Your task to perform on an android device: open device folders in google photos Image 0: 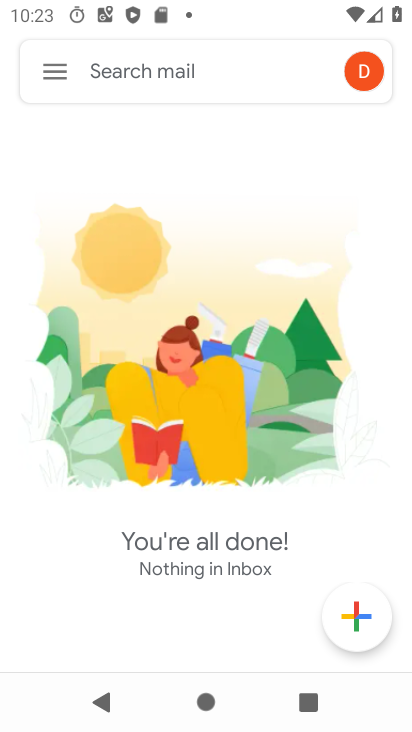
Step 0: press home button
Your task to perform on an android device: open device folders in google photos Image 1: 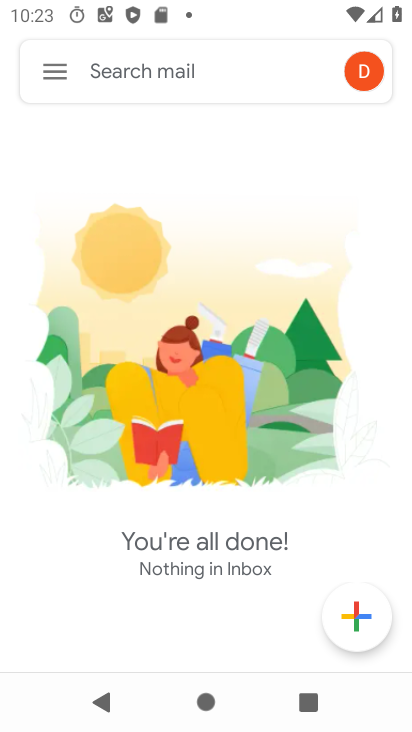
Step 1: press home button
Your task to perform on an android device: open device folders in google photos Image 2: 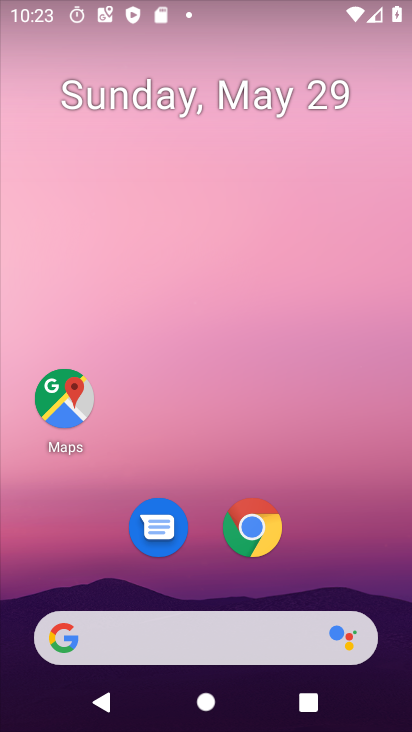
Step 2: drag from (336, 498) to (295, 57)
Your task to perform on an android device: open device folders in google photos Image 3: 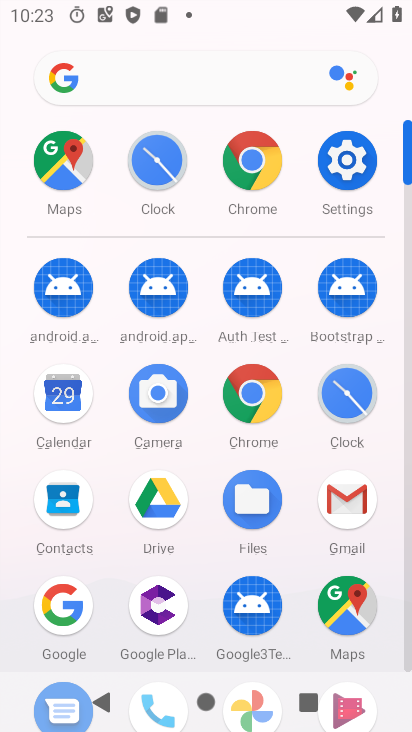
Step 3: drag from (311, 563) to (307, 368)
Your task to perform on an android device: open device folders in google photos Image 4: 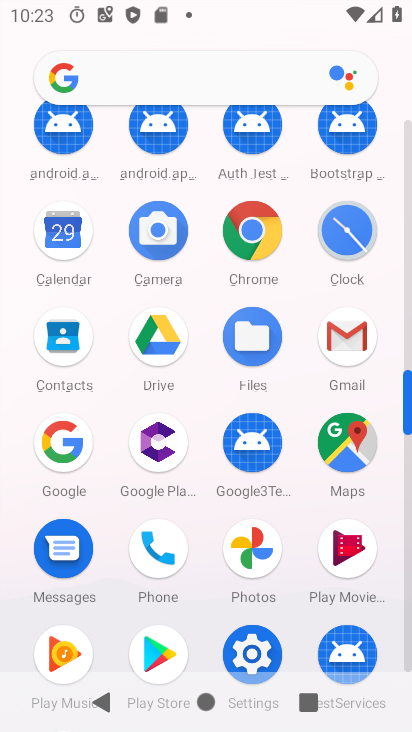
Step 4: click (307, 338)
Your task to perform on an android device: open device folders in google photos Image 5: 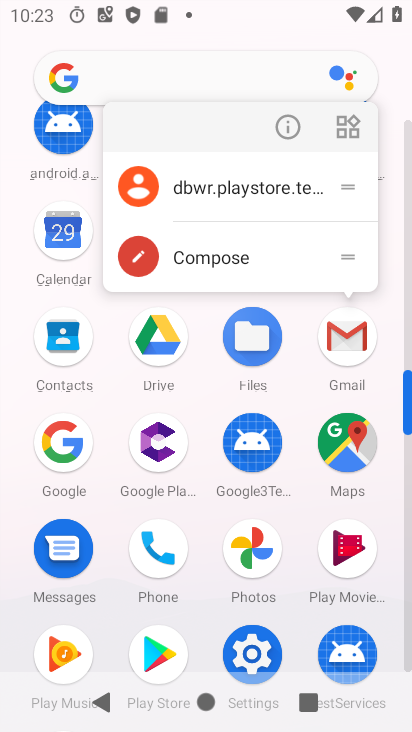
Step 5: click (262, 538)
Your task to perform on an android device: open device folders in google photos Image 6: 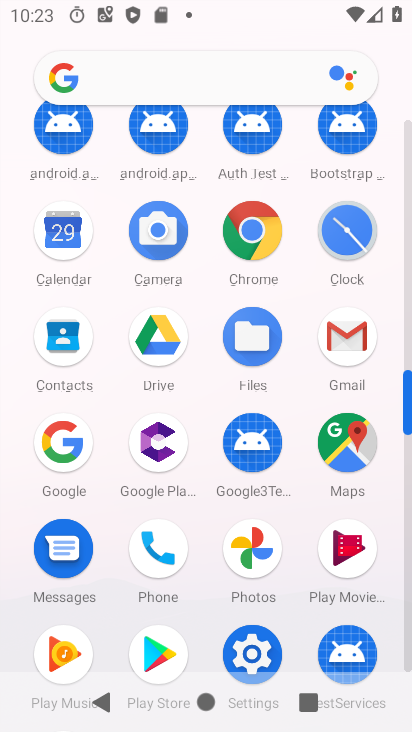
Step 6: click (241, 537)
Your task to perform on an android device: open device folders in google photos Image 7: 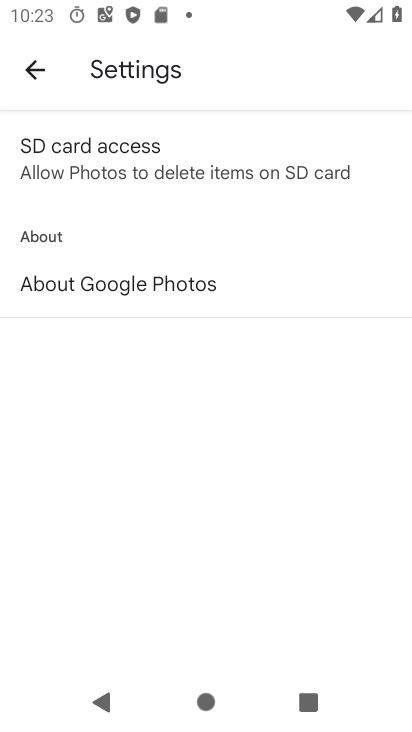
Step 7: click (46, 81)
Your task to perform on an android device: open device folders in google photos Image 8: 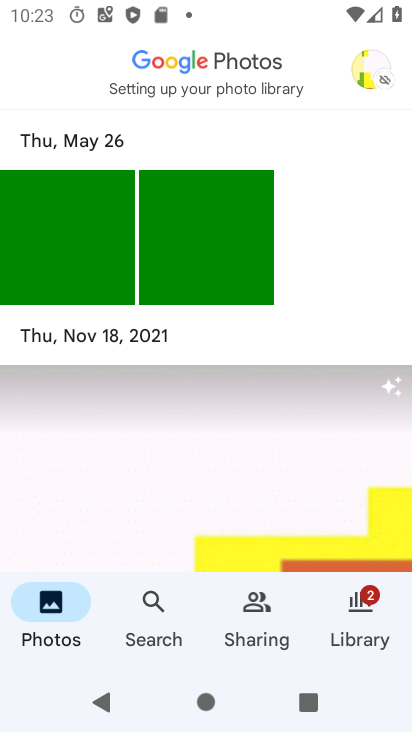
Step 8: click (390, 623)
Your task to perform on an android device: open device folders in google photos Image 9: 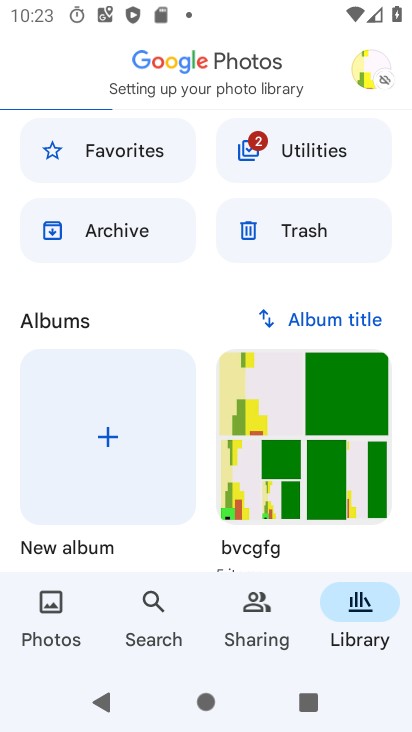
Step 9: click (338, 154)
Your task to perform on an android device: open device folders in google photos Image 10: 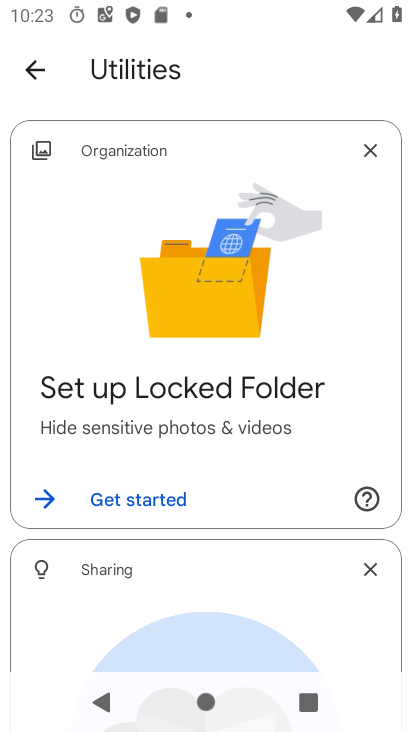
Step 10: drag from (184, 576) to (239, 187)
Your task to perform on an android device: open device folders in google photos Image 11: 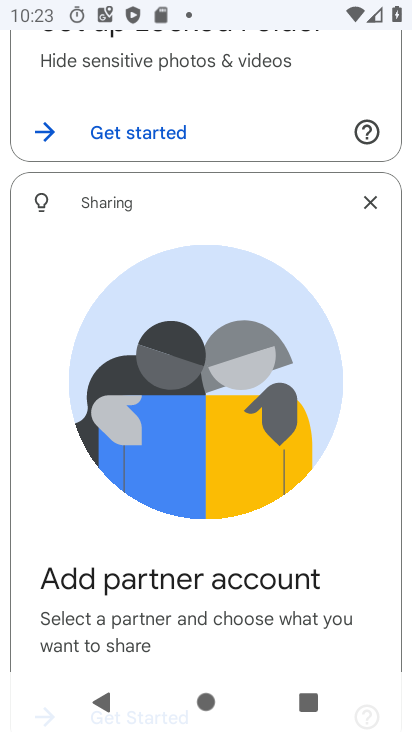
Step 11: drag from (204, 514) to (227, 192)
Your task to perform on an android device: open device folders in google photos Image 12: 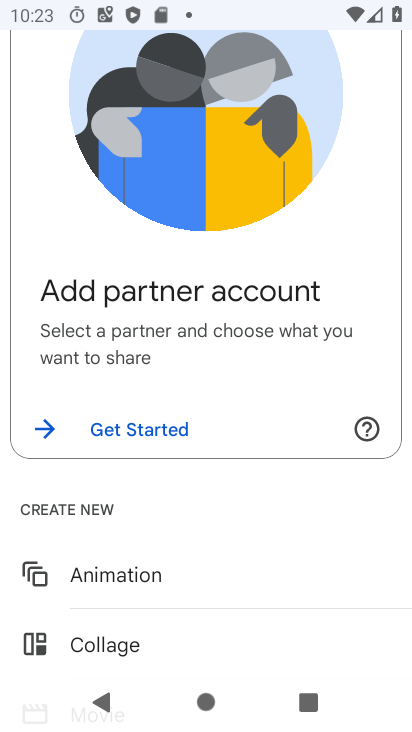
Step 12: click (229, 188)
Your task to perform on an android device: open device folders in google photos Image 13: 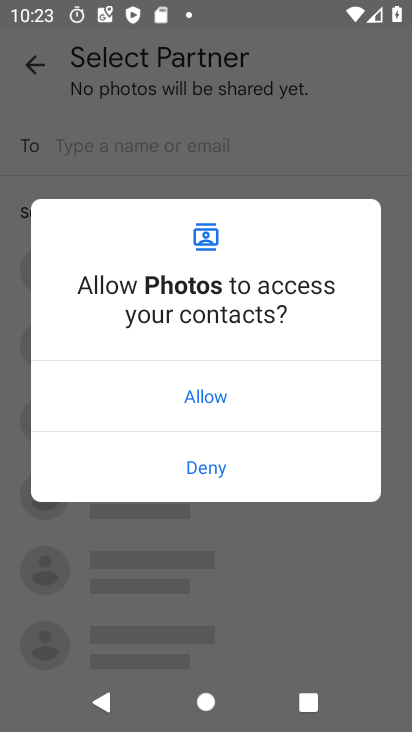
Step 13: drag from (243, 575) to (262, 489)
Your task to perform on an android device: open device folders in google photos Image 14: 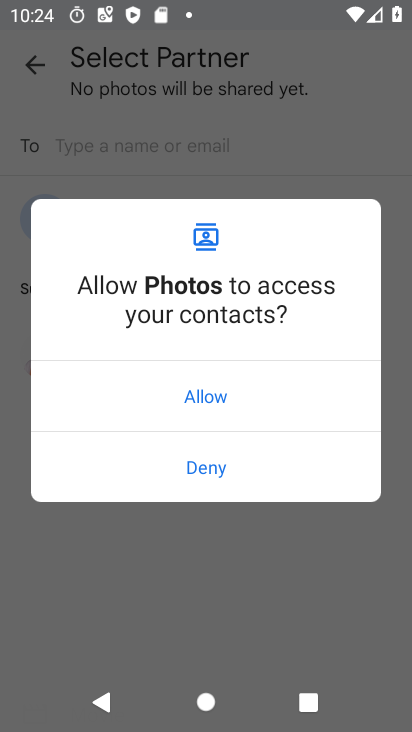
Step 14: press back button
Your task to perform on an android device: open device folders in google photos Image 15: 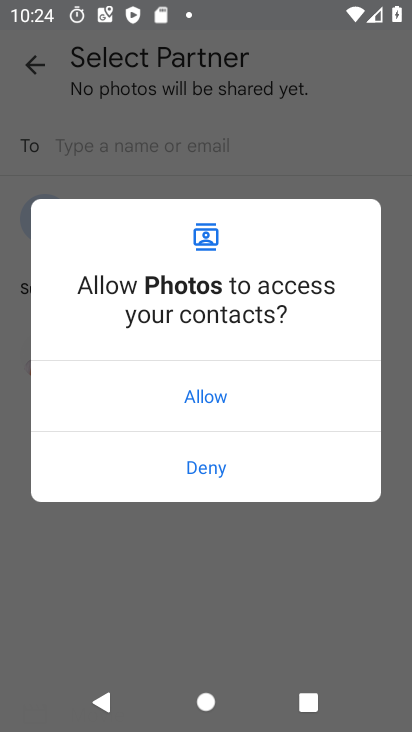
Step 15: press back button
Your task to perform on an android device: open device folders in google photos Image 16: 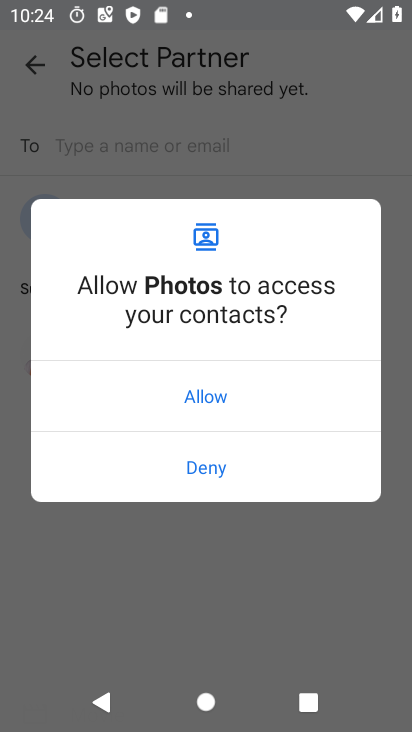
Step 16: click (266, 472)
Your task to perform on an android device: open device folders in google photos Image 17: 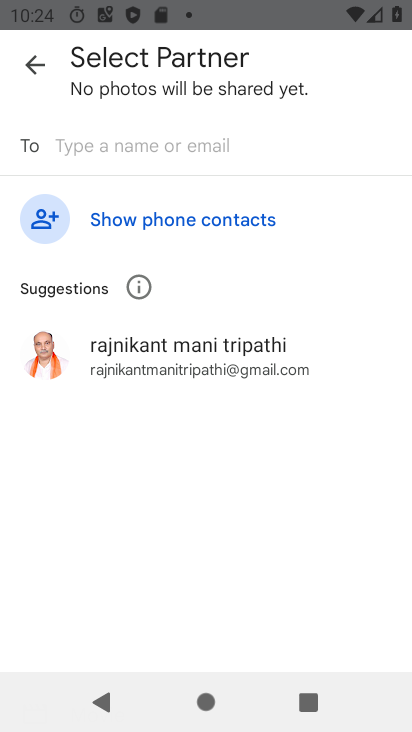
Step 17: click (29, 58)
Your task to perform on an android device: open device folders in google photos Image 18: 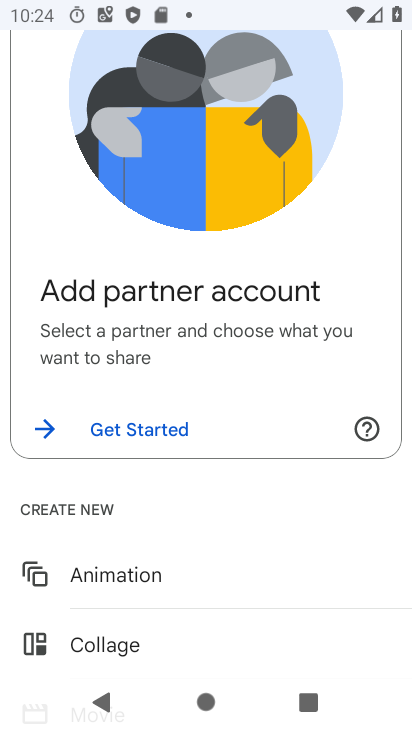
Step 18: drag from (231, 631) to (263, 185)
Your task to perform on an android device: open device folders in google photos Image 19: 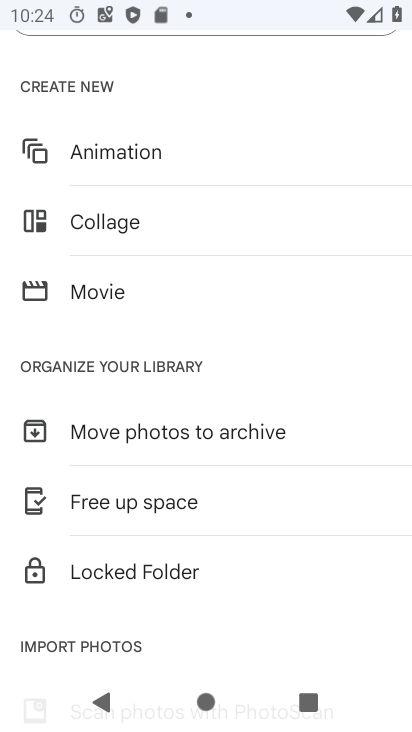
Step 19: click (263, 185)
Your task to perform on an android device: open device folders in google photos Image 20: 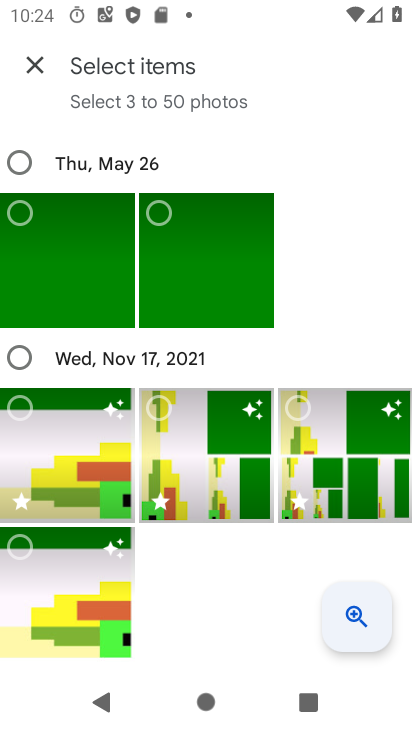
Step 20: click (41, 57)
Your task to perform on an android device: open device folders in google photos Image 21: 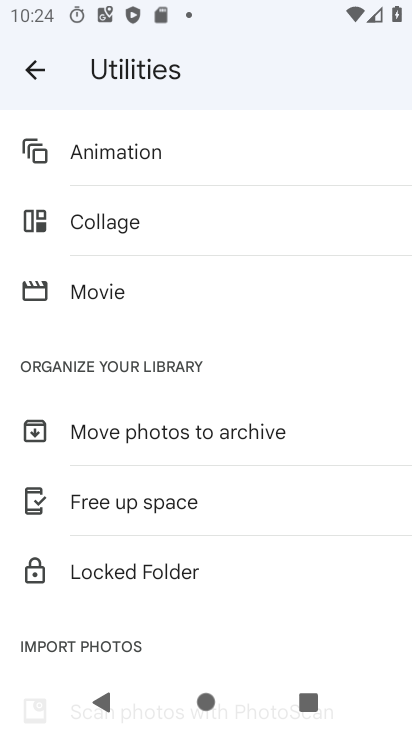
Step 21: drag from (268, 596) to (248, 145)
Your task to perform on an android device: open device folders in google photos Image 22: 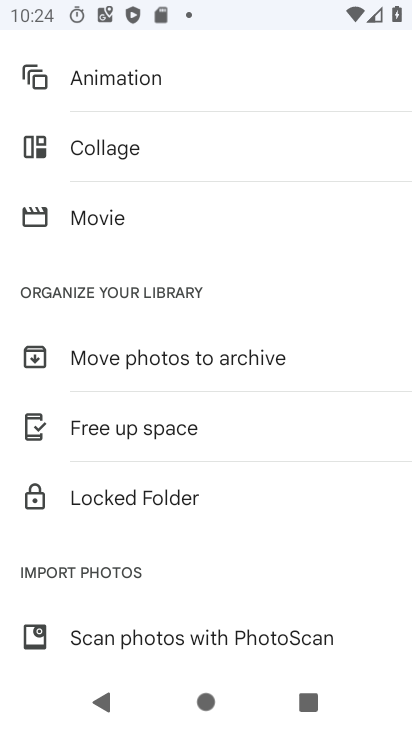
Step 22: drag from (235, 509) to (292, 70)
Your task to perform on an android device: open device folders in google photos Image 23: 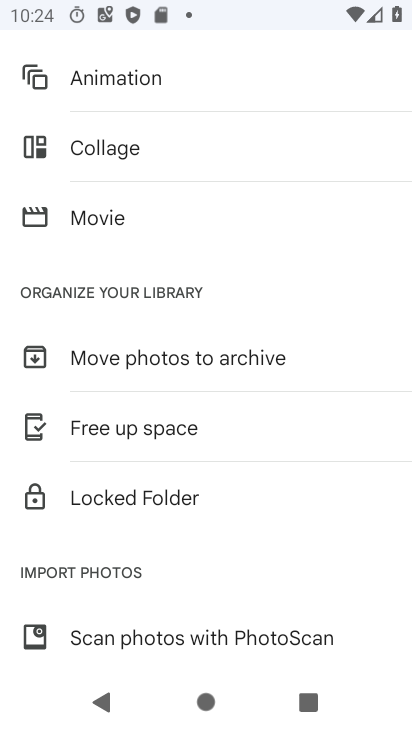
Step 23: drag from (218, 128) to (254, 583)
Your task to perform on an android device: open device folders in google photos Image 24: 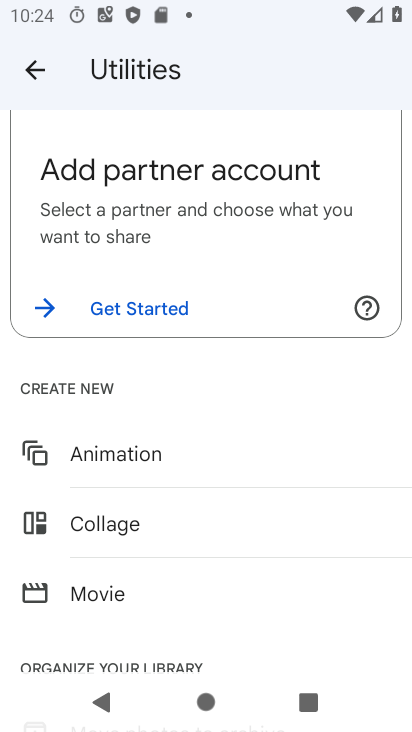
Step 24: drag from (245, 154) to (267, 665)
Your task to perform on an android device: open device folders in google photos Image 25: 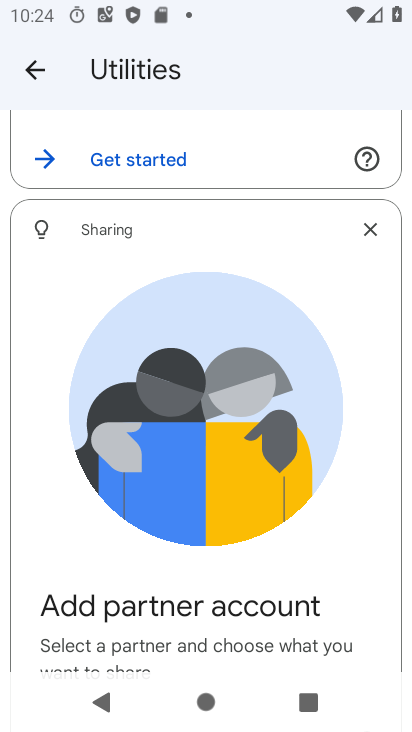
Step 25: click (39, 46)
Your task to perform on an android device: open device folders in google photos Image 26: 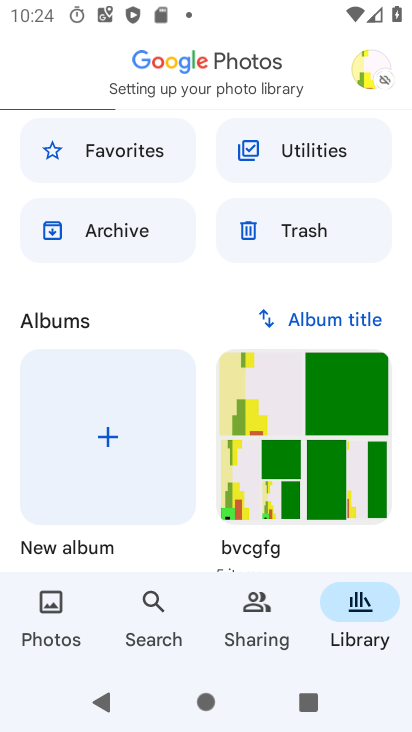
Step 26: click (361, 622)
Your task to perform on an android device: open device folders in google photos Image 27: 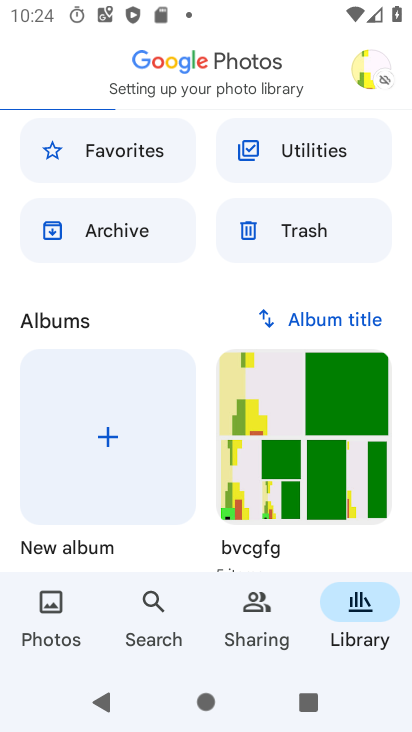
Step 27: click (114, 238)
Your task to perform on an android device: open device folders in google photos Image 28: 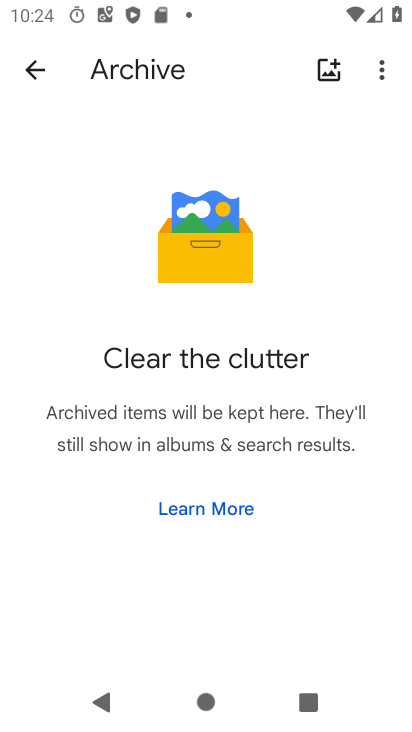
Step 28: click (31, 89)
Your task to perform on an android device: open device folders in google photos Image 29: 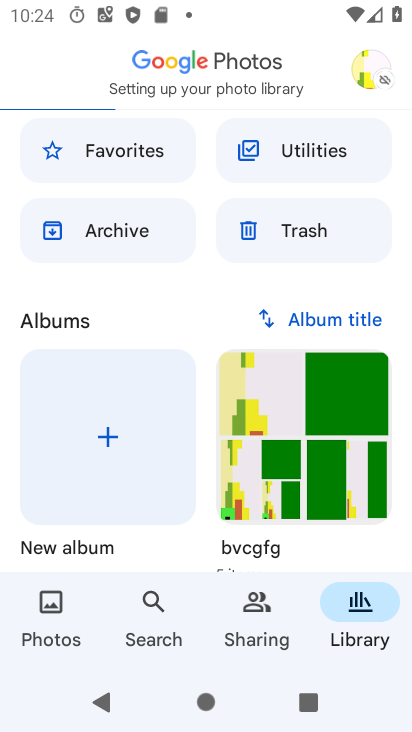
Step 29: click (333, 145)
Your task to perform on an android device: open device folders in google photos Image 30: 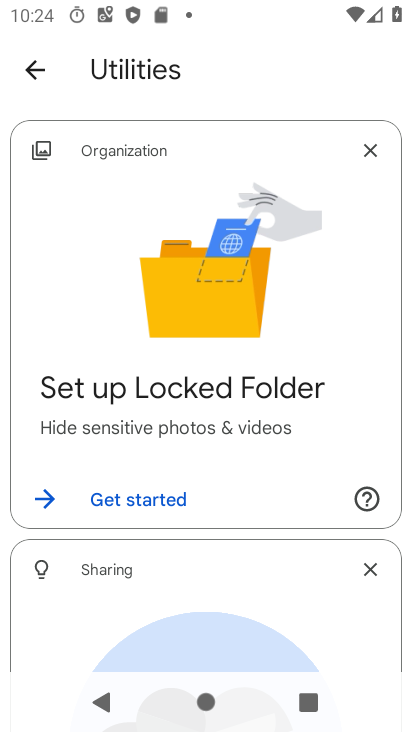
Step 30: drag from (244, 573) to (248, 28)
Your task to perform on an android device: open device folders in google photos Image 31: 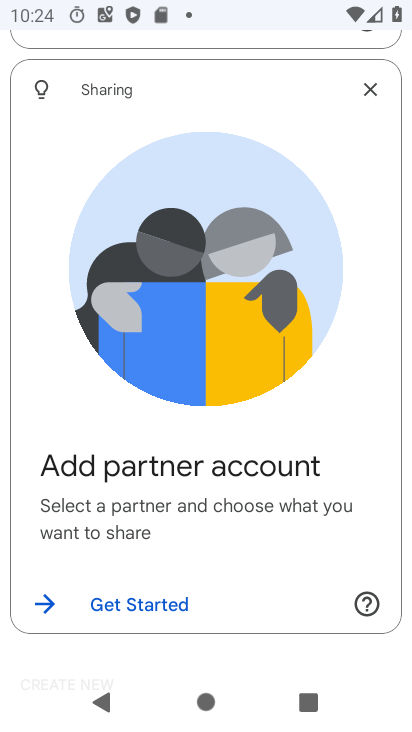
Step 31: drag from (243, 505) to (260, 46)
Your task to perform on an android device: open device folders in google photos Image 32: 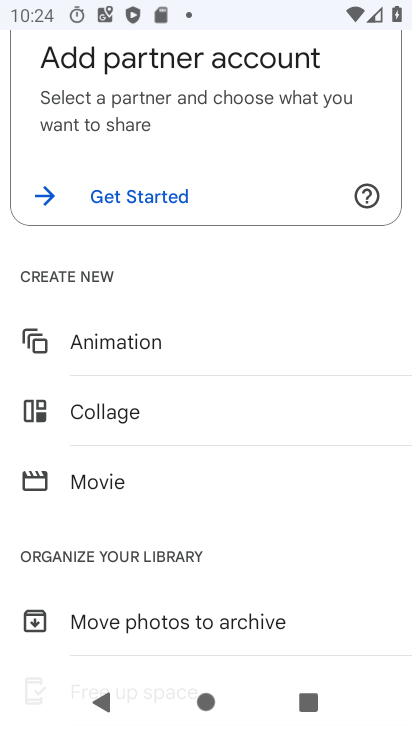
Step 32: drag from (217, 533) to (240, 144)
Your task to perform on an android device: open device folders in google photos Image 33: 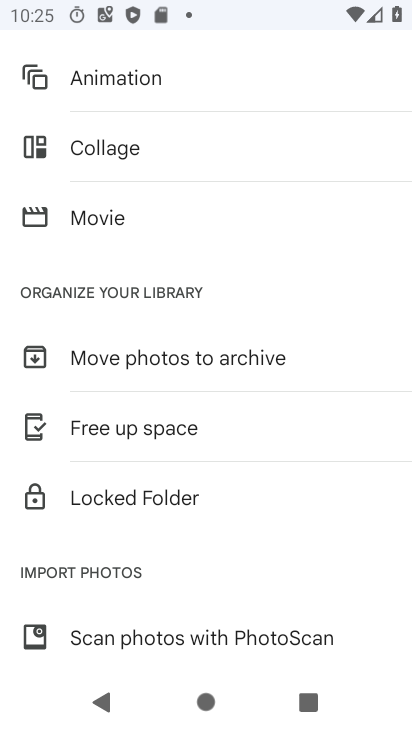
Step 33: drag from (226, 578) to (246, 194)
Your task to perform on an android device: open device folders in google photos Image 34: 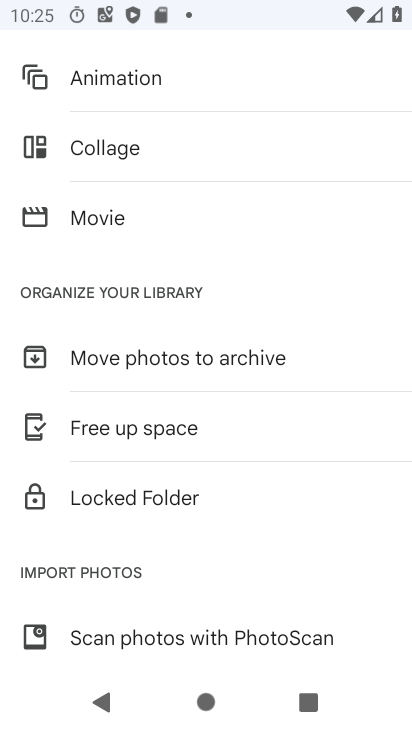
Step 34: drag from (224, 203) to (212, 148)
Your task to perform on an android device: open device folders in google photos Image 35: 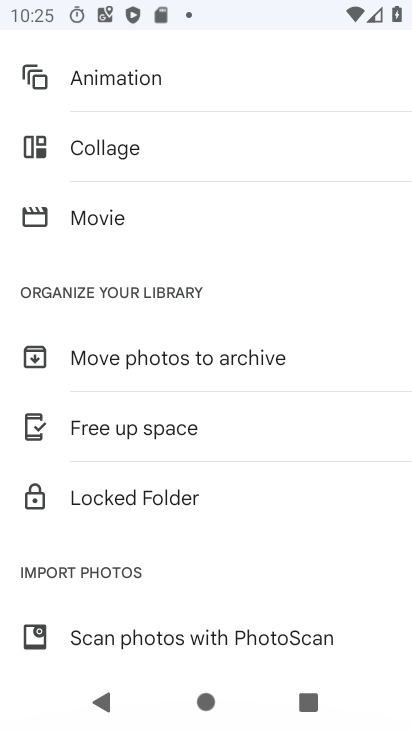
Step 35: click (191, 344)
Your task to perform on an android device: open device folders in google photos Image 36: 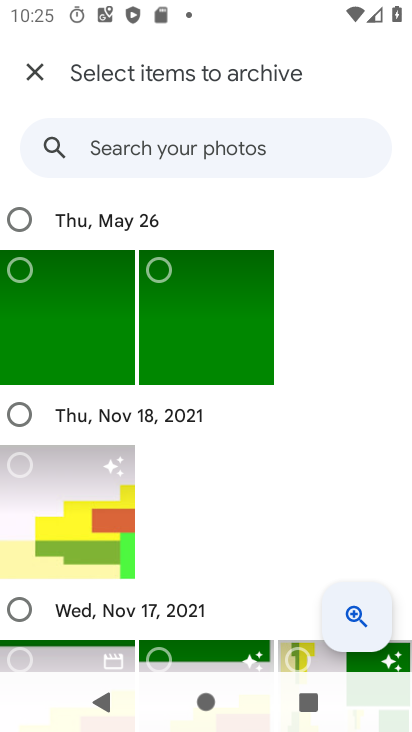
Step 36: click (22, 72)
Your task to perform on an android device: open device folders in google photos Image 37: 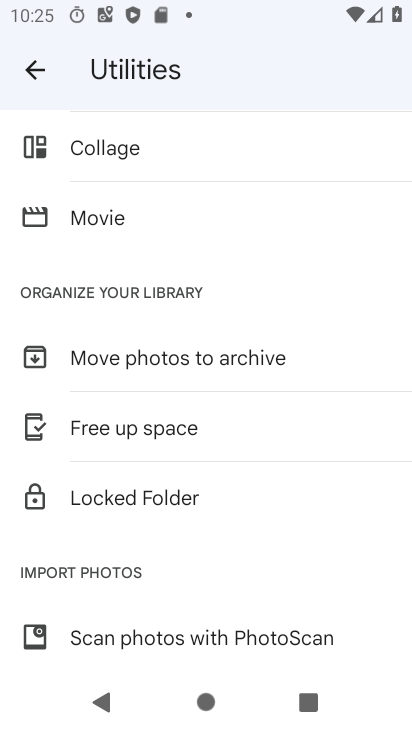
Step 37: click (182, 433)
Your task to perform on an android device: open device folders in google photos Image 38: 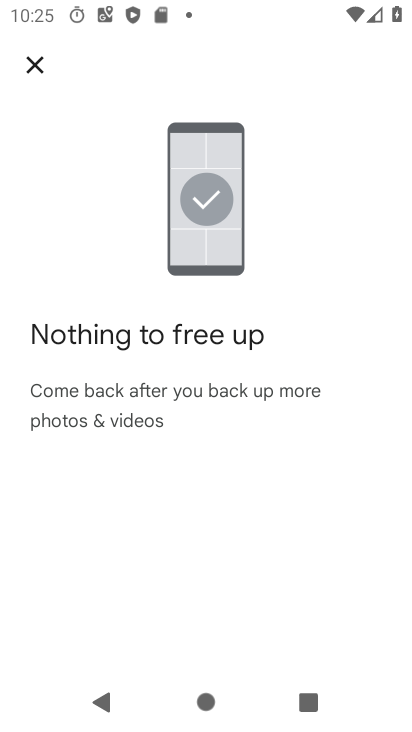
Step 38: click (25, 44)
Your task to perform on an android device: open device folders in google photos Image 39: 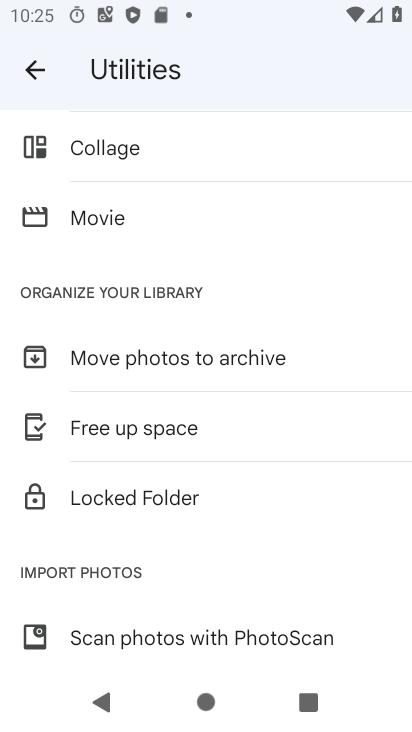
Step 39: drag from (268, 313) to (266, 646)
Your task to perform on an android device: open device folders in google photos Image 40: 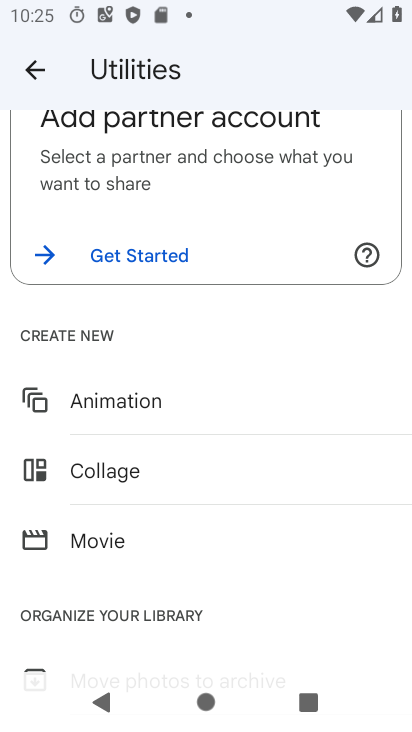
Step 40: click (37, 77)
Your task to perform on an android device: open device folders in google photos Image 41: 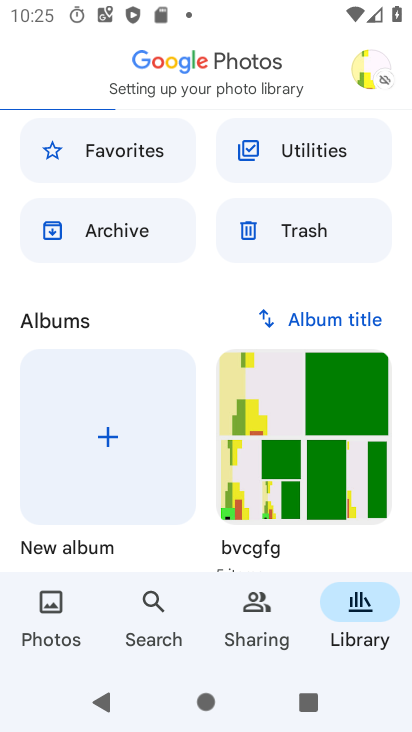
Step 41: click (375, 50)
Your task to perform on an android device: open device folders in google photos Image 42: 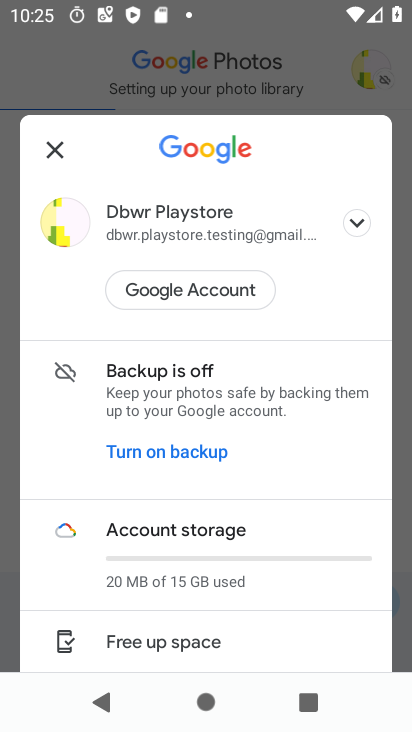
Step 42: drag from (224, 588) to (235, 136)
Your task to perform on an android device: open device folders in google photos Image 43: 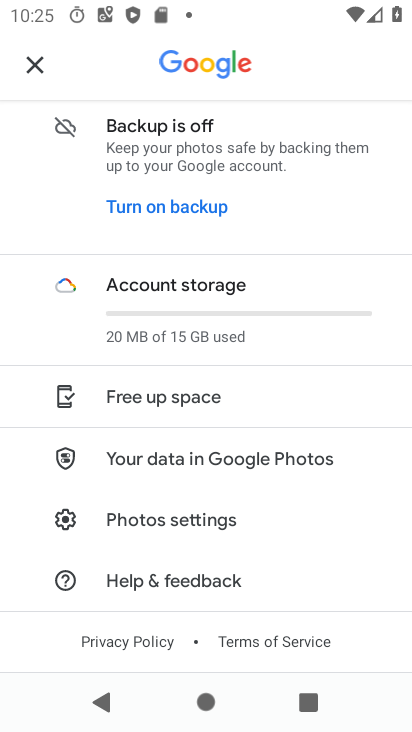
Step 43: click (201, 522)
Your task to perform on an android device: open device folders in google photos Image 44: 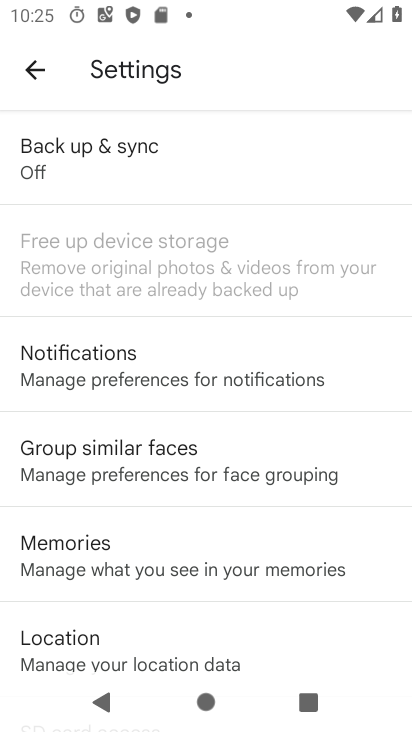
Step 44: click (168, 137)
Your task to perform on an android device: open device folders in google photos Image 45: 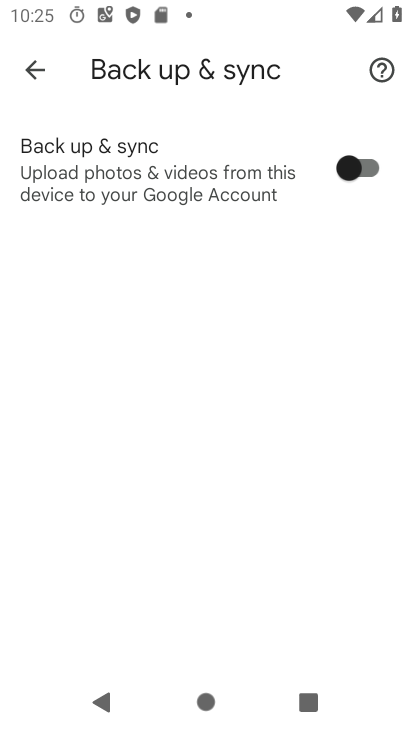
Step 45: click (329, 153)
Your task to perform on an android device: open device folders in google photos Image 46: 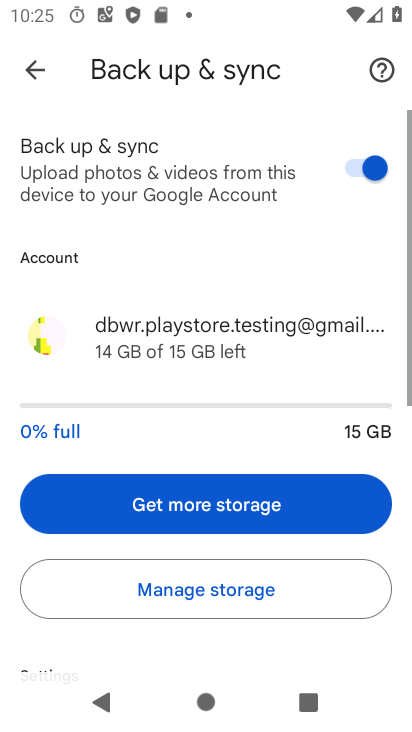
Step 46: drag from (194, 592) to (241, 0)
Your task to perform on an android device: open device folders in google photos Image 47: 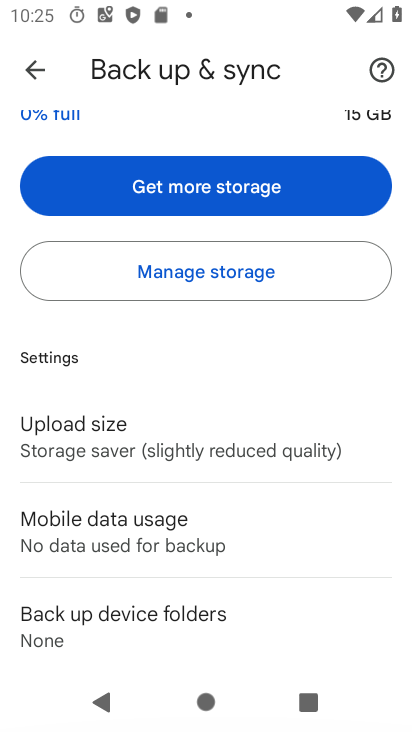
Step 47: drag from (223, 534) to (254, 132)
Your task to perform on an android device: open device folders in google photos Image 48: 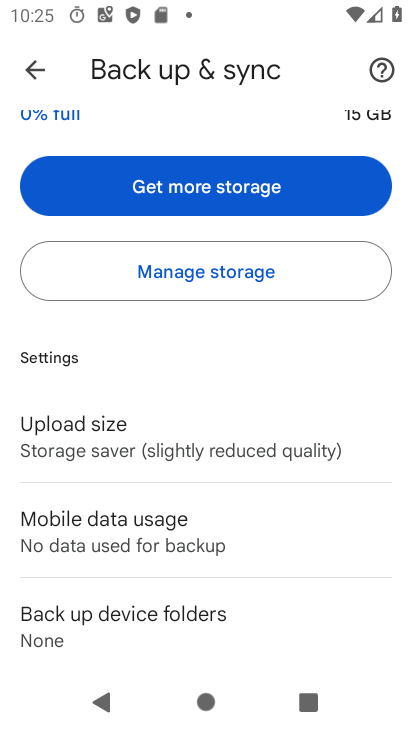
Step 48: click (138, 629)
Your task to perform on an android device: open device folders in google photos Image 49: 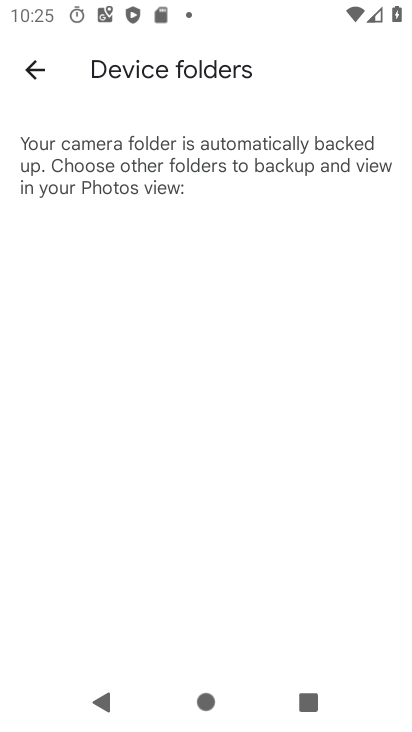
Step 49: task complete